Your task to perform on an android device: Open maps Image 0: 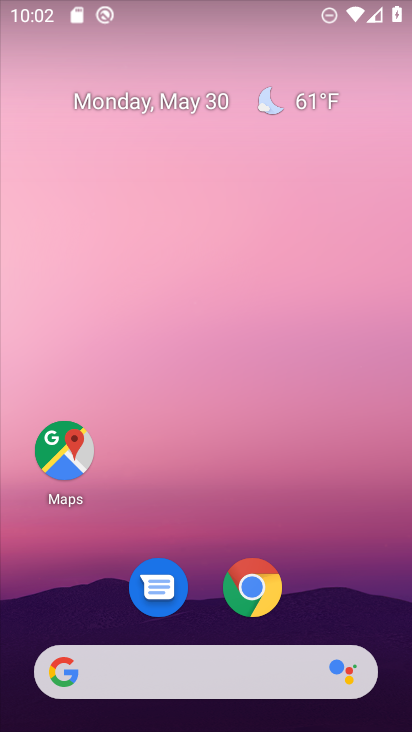
Step 0: drag from (220, 627) to (183, 1)
Your task to perform on an android device: Open maps Image 1: 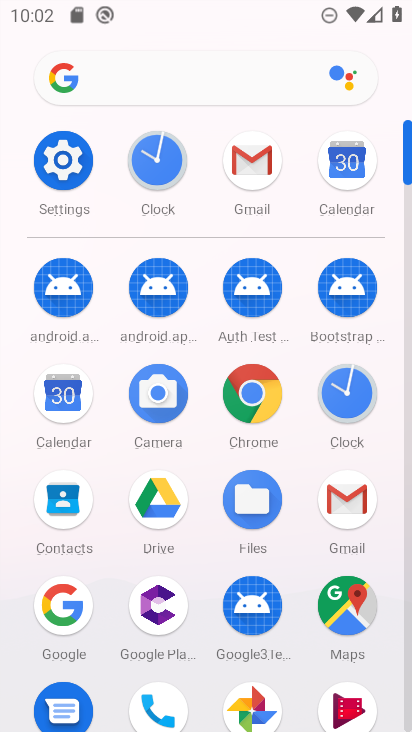
Step 1: click (340, 616)
Your task to perform on an android device: Open maps Image 2: 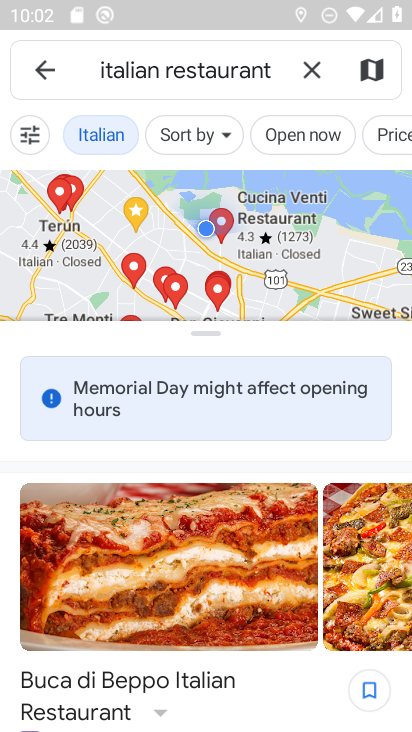
Step 2: task complete